Your task to perform on an android device: turn notification dots on Image 0: 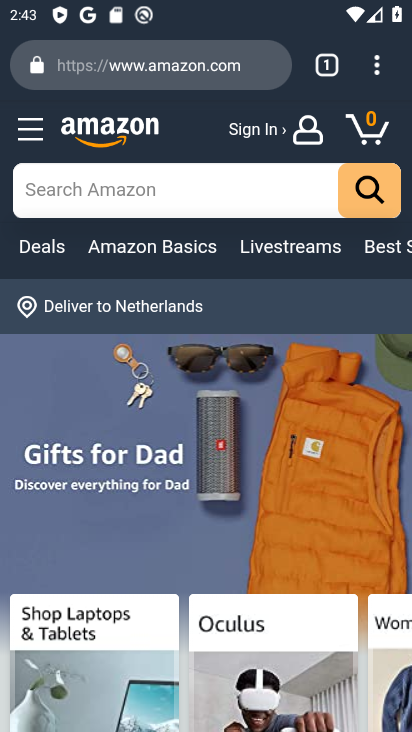
Step 0: press home button
Your task to perform on an android device: turn notification dots on Image 1: 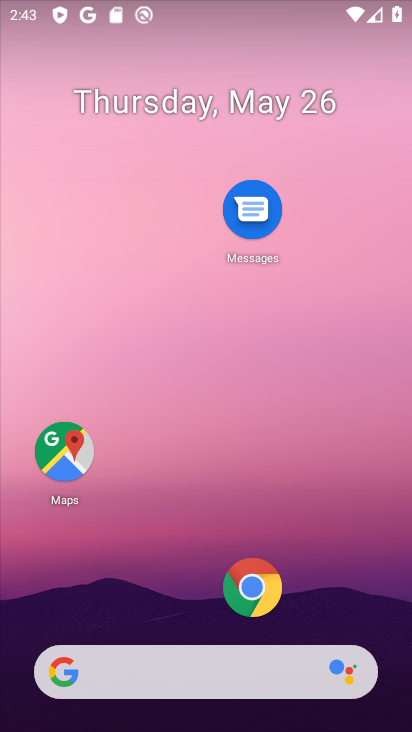
Step 1: drag from (131, 613) to (218, 5)
Your task to perform on an android device: turn notification dots on Image 2: 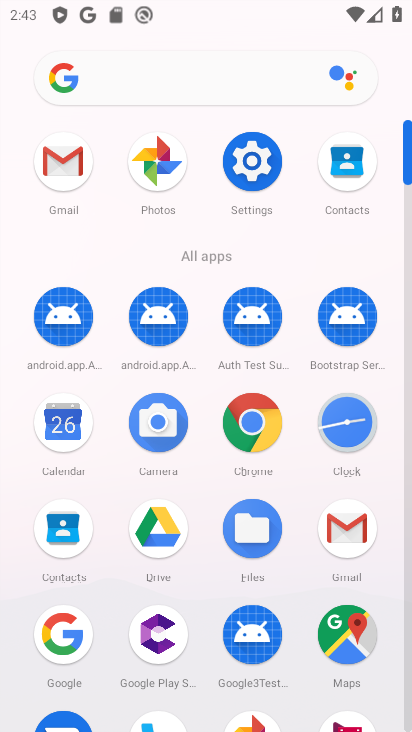
Step 2: click (277, 174)
Your task to perform on an android device: turn notification dots on Image 3: 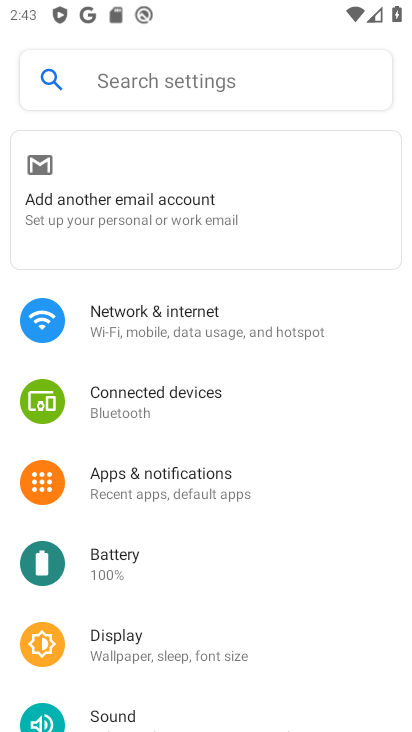
Step 3: drag from (166, 511) to (206, 263)
Your task to perform on an android device: turn notification dots on Image 4: 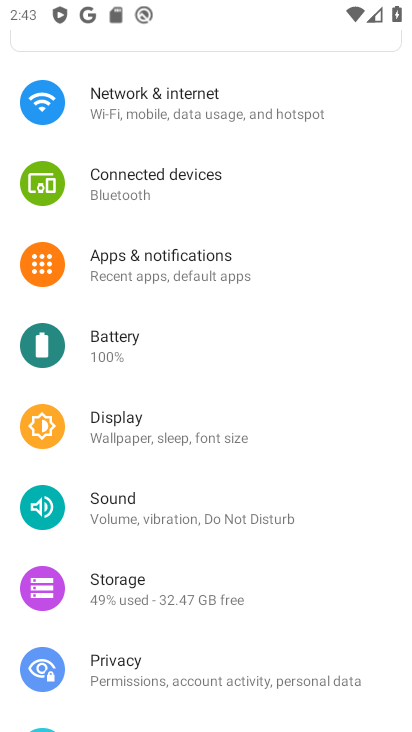
Step 4: drag from (144, 534) to (178, 264)
Your task to perform on an android device: turn notification dots on Image 5: 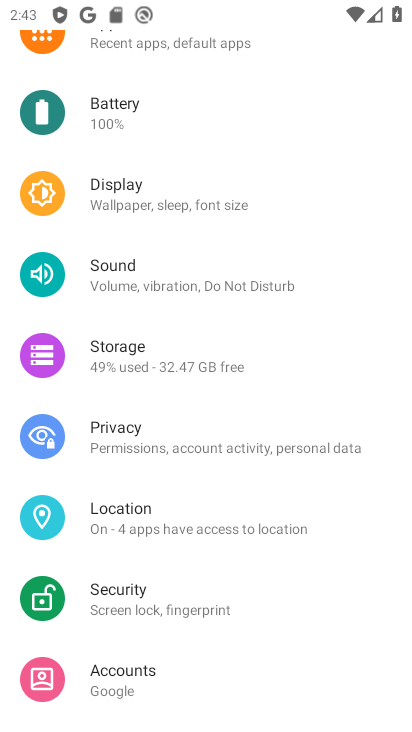
Step 5: drag from (175, 535) to (171, 714)
Your task to perform on an android device: turn notification dots on Image 6: 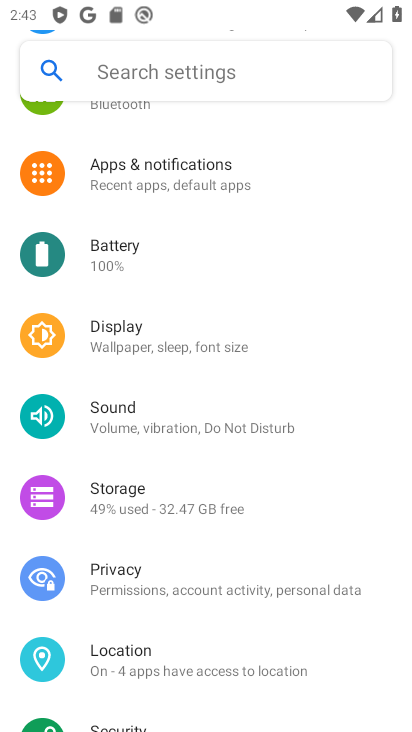
Step 6: click (197, 182)
Your task to perform on an android device: turn notification dots on Image 7: 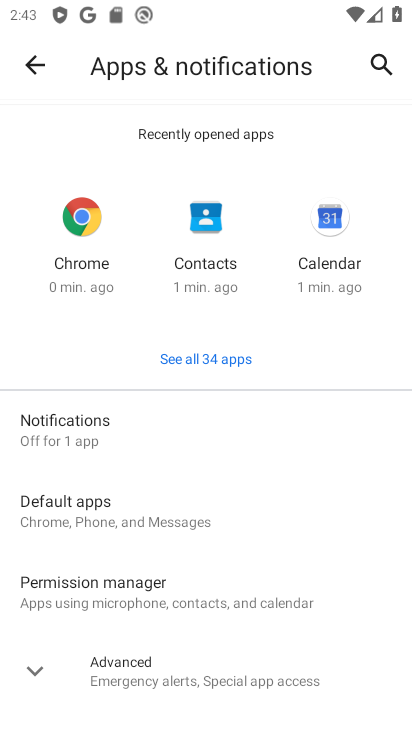
Step 7: click (140, 438)
Your task to perform on an android device: turn notification dots on Image 8: 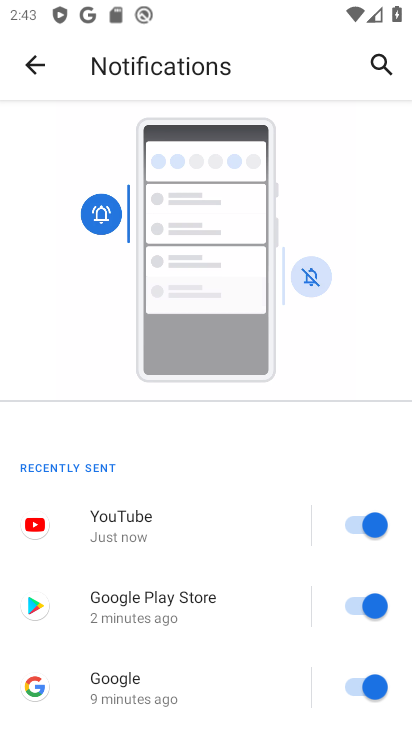
Step 8: drag from (210, 642) to (267, 162)
Your task to perform on an android device: turn notification dots on Image 9: 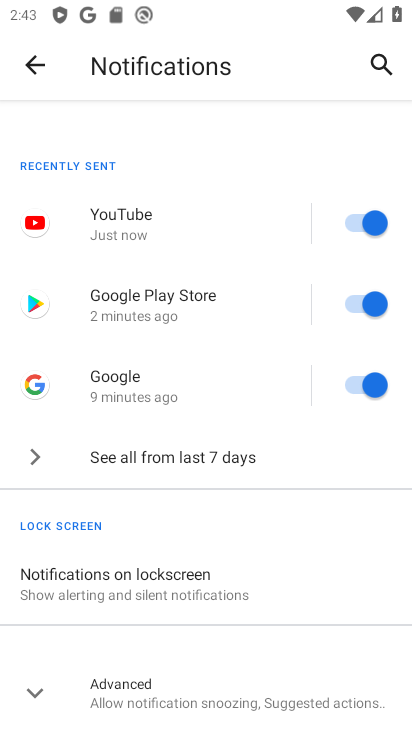
Step 9: click (141, 704)
Your task to perform on an android device: turn notification dots on Image 10: 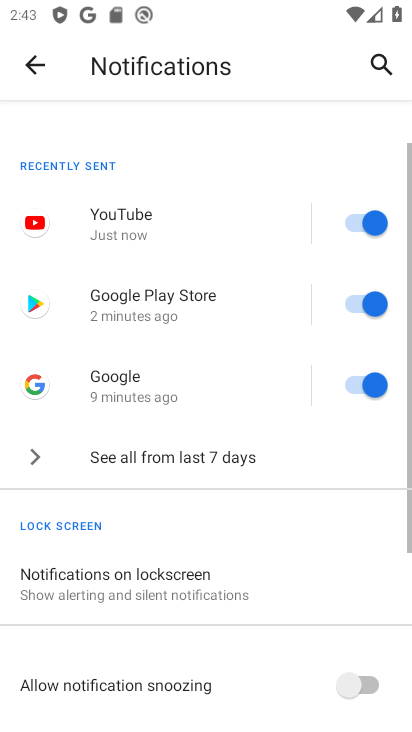
Step 10: task complete